Your task to perform on an android device: turn on priority inbox in the gmail app Image 0: 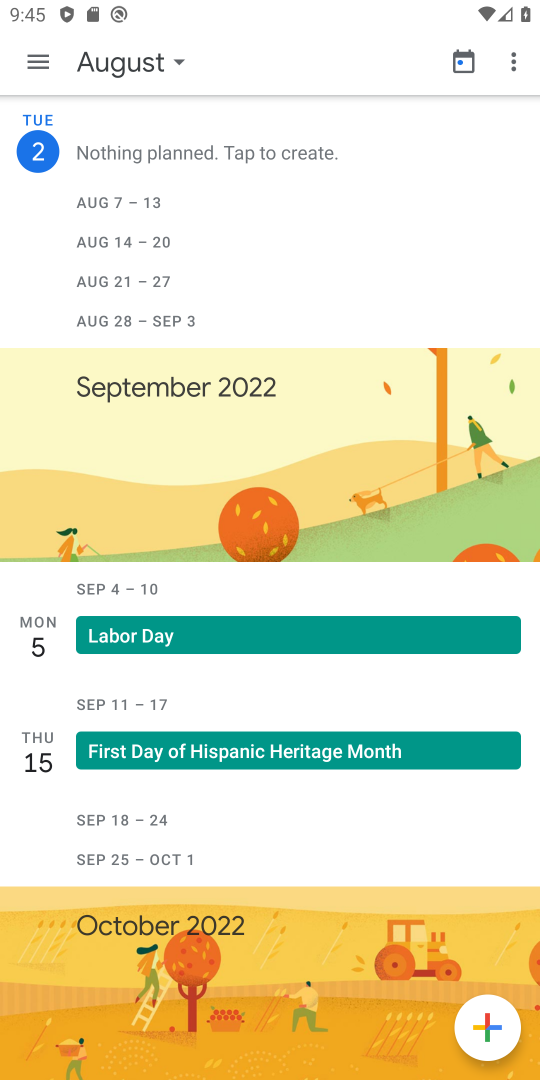
Step 0: press home button
Your task to perform on an android device: turn on priority inbox in the gmail app Image 1: 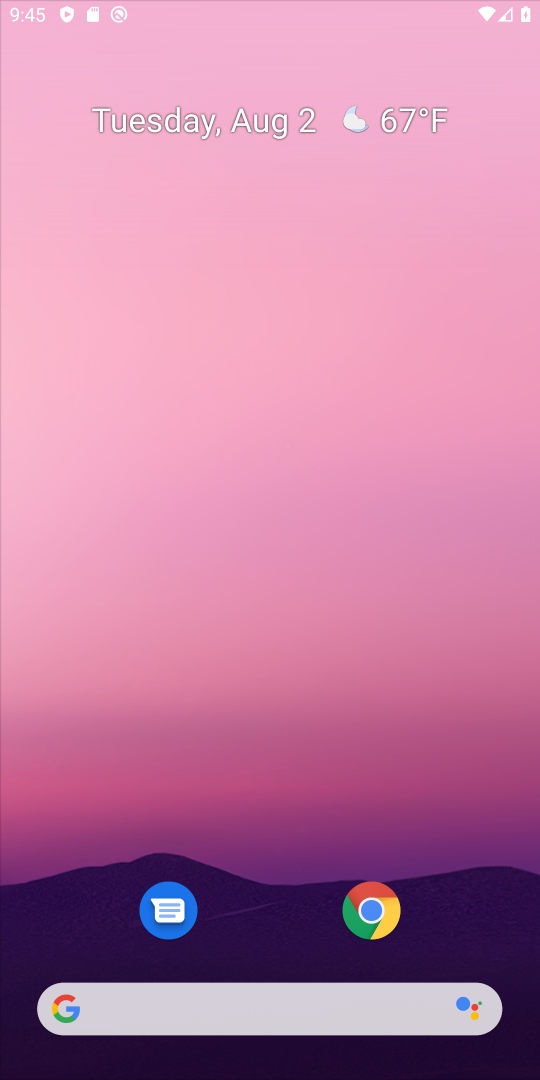
Step 1: drag from (198, 968) to (245, 388)
Your task to perform on an android device: turn on priority inbox in the gmail app Image 2: 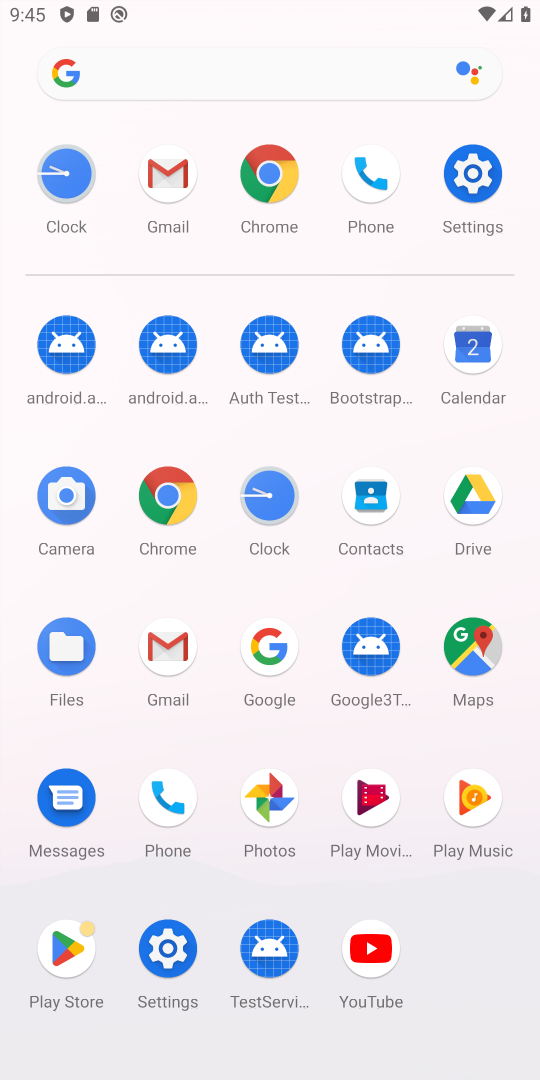
Step 2: click (173, 160)
Your task to perform on an android device: turn on priority inbox in the gmail app Image 3: 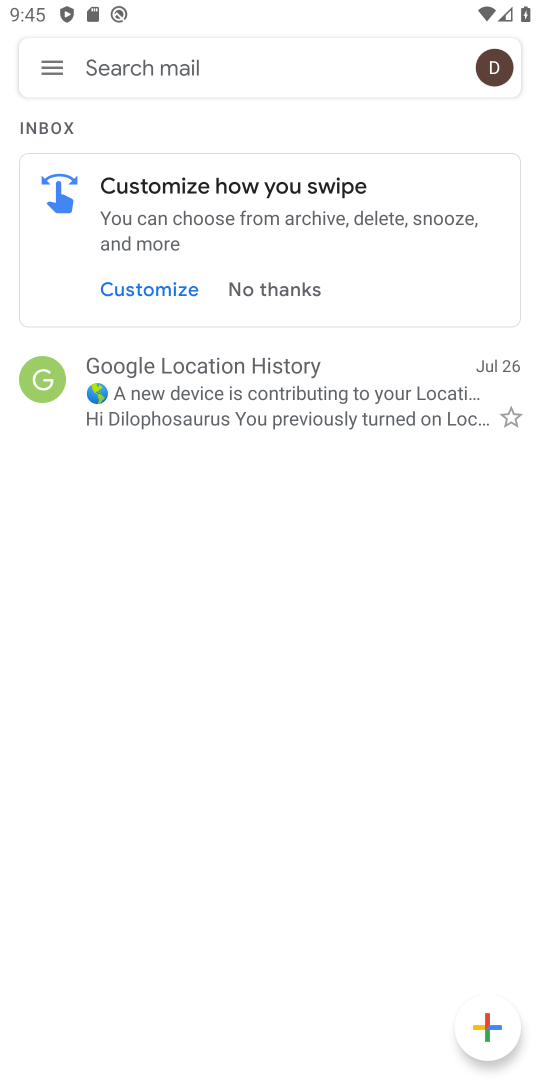
Step 3: click (61, 62)
Your task to perform on an android device: turn on priority inbox in the gmail app Image 4: 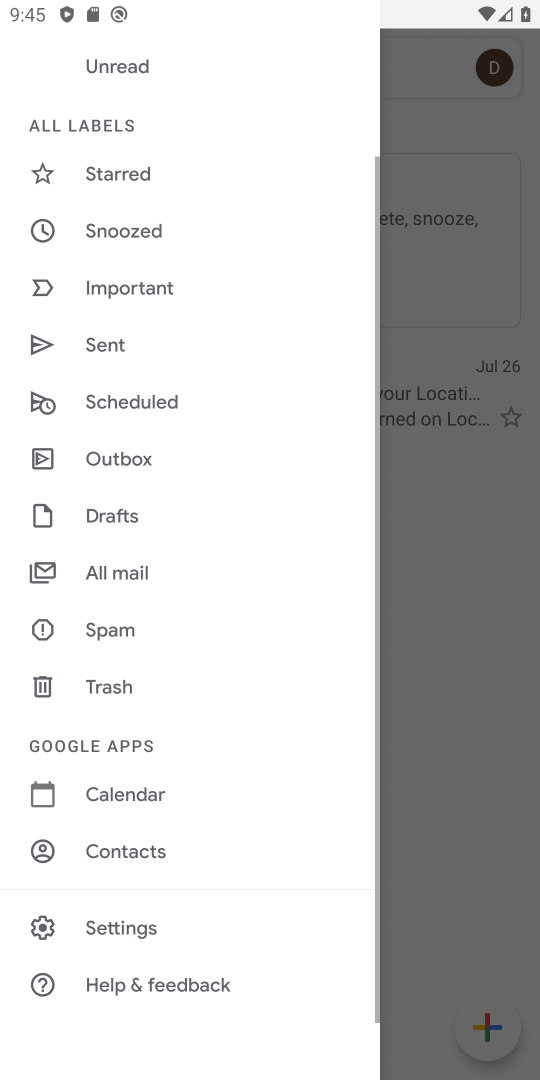
Step 4: click (128, 935)
Your task to perform on an android device: turn on priority inbox in the gmail app Image 5: 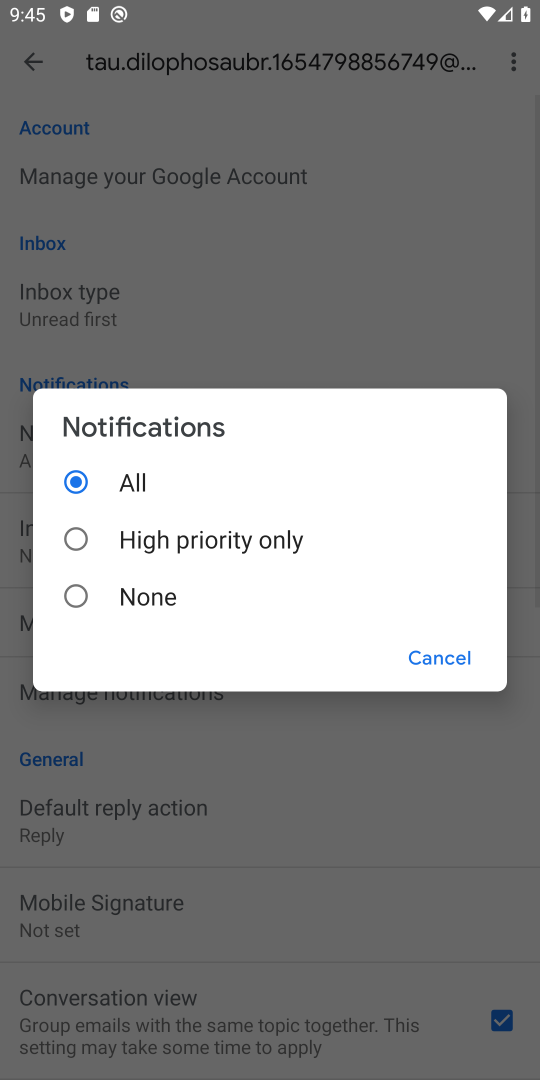
Step 5: click (170, 323)
Your task to perform on an android device: turn on priority inbox in the gmail app Image 6: 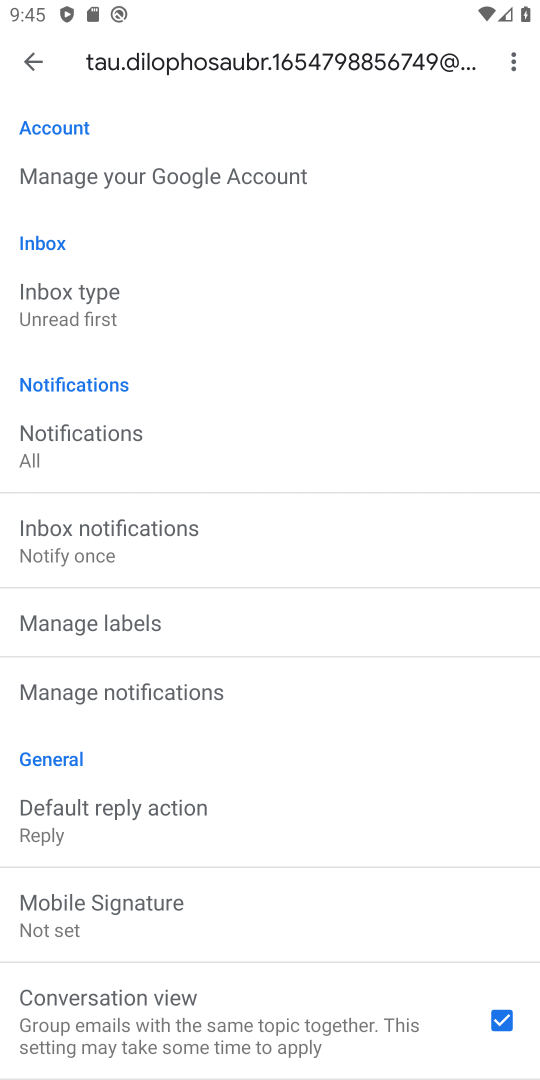
Step 6: click (76, 301)
Your task to perform on an android device: turn on priority inbox in the gmail app Image 7: 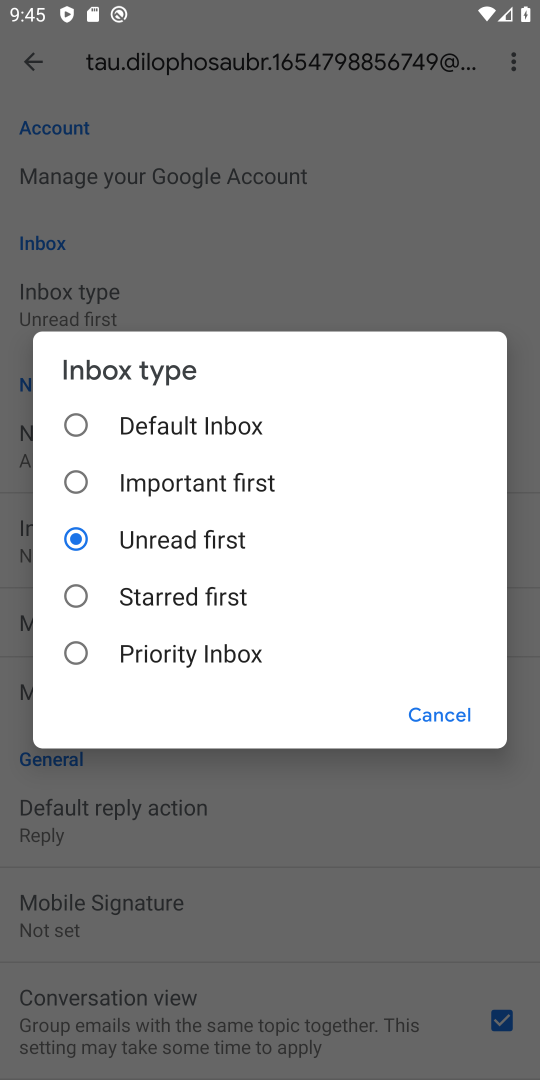
Step 7: click (140, 663)
Your task to perform on an android device: turn on priority inbox in the gmail app Image 8: 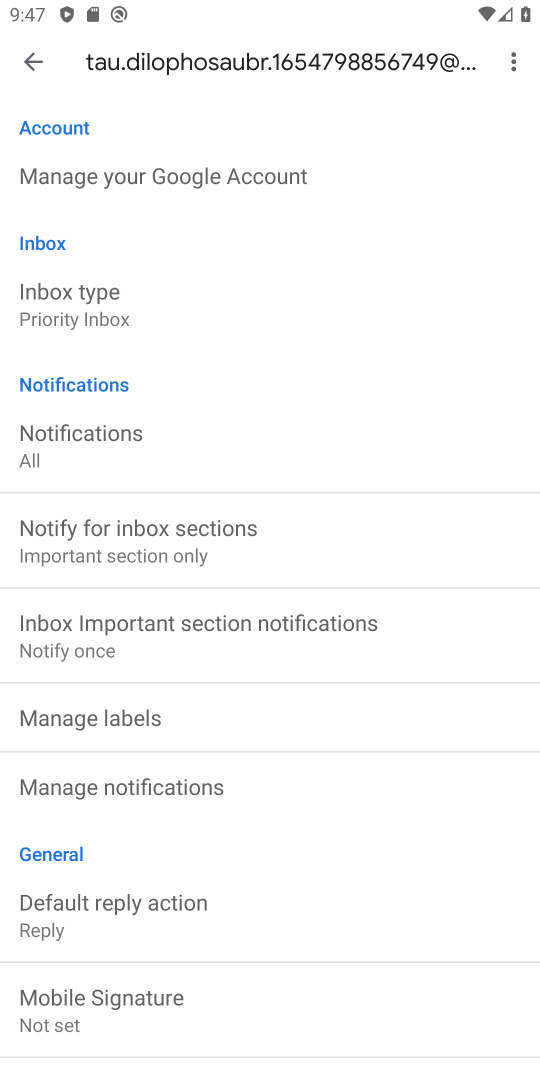
Step 8: task complete